Your task to perform on an android device: Turn on the flashlight Image 0: 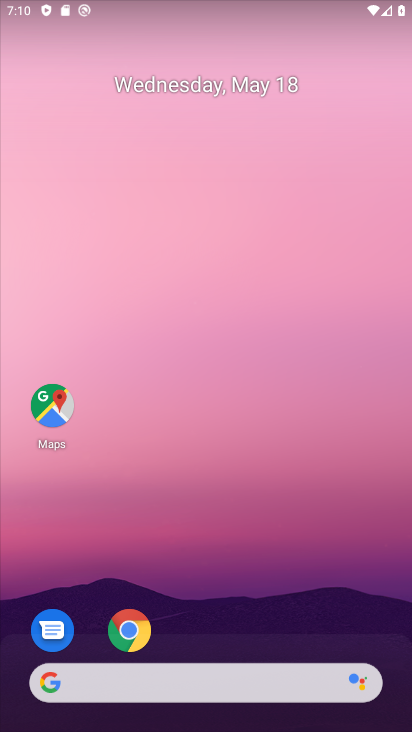
Step 0: drag from (267, 529) to (170, 63)
Your task to perform on an android device: Turn on the flashlight Image 1: 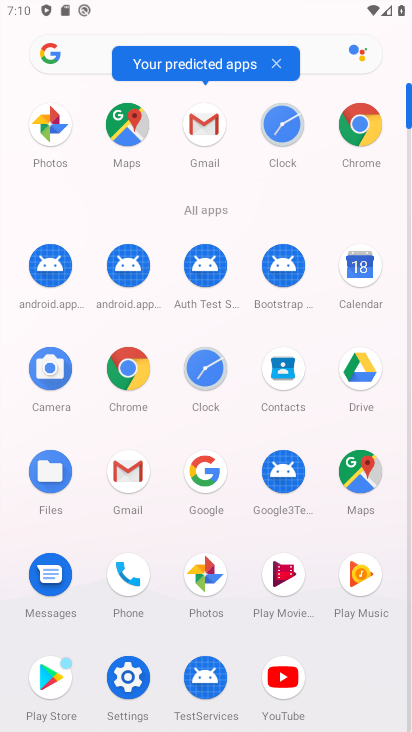
Step 1: click (121, 673)
Your task to perform on an android device: Turn on the flashlight Image 2: 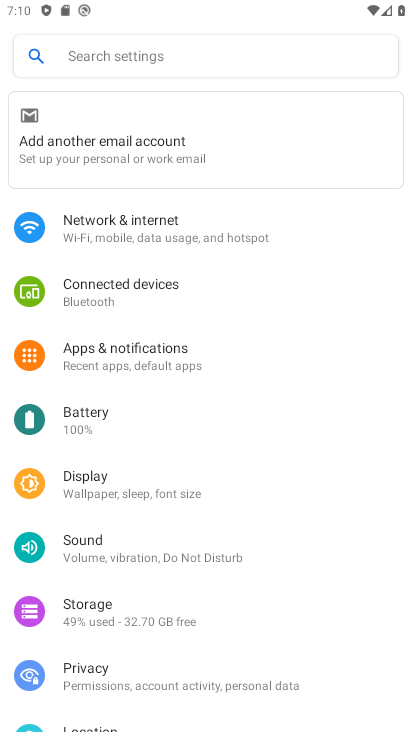
Step 2: click (91, 470)
Your task to perform on an android device: Turn on the flashlight Image 3: 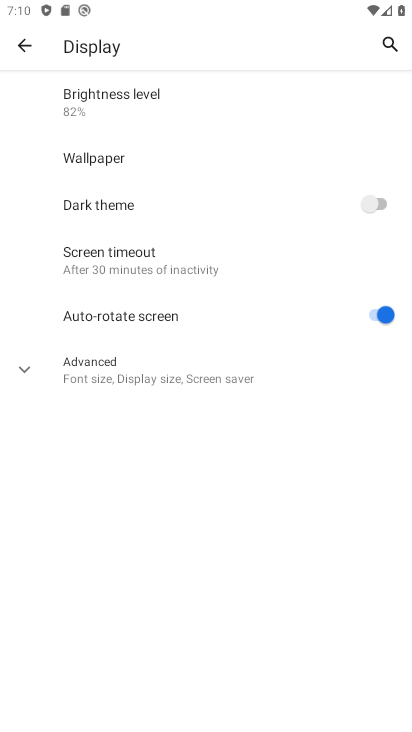
Step 3: task complete